Your task to perform on an android device: toggle show notifications on the lock screen Image 0: 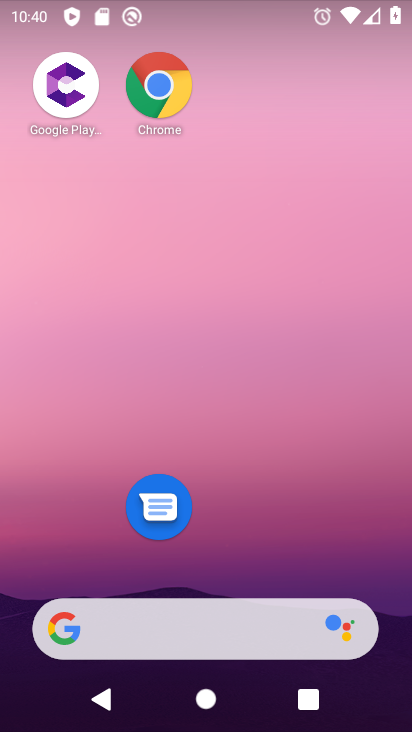
Step 0: drag from (268, 696) to (187, 110)
Your task to perform on an android device: toggle show notifications on the lock screen Image 1: 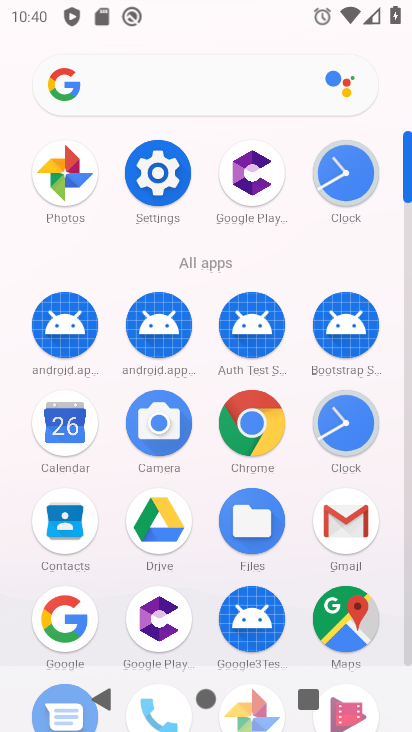
Step 1: click (159, 167)
Your task to perform on an android device: toggle show notifications on the lock screen Image 2: 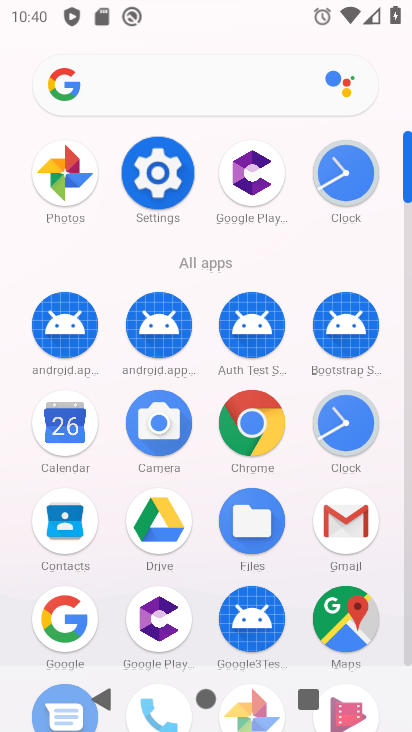
Step 2: click (157, 172)
Your task to perform on an android device: toggle show notifications on the lock screen Image 3: 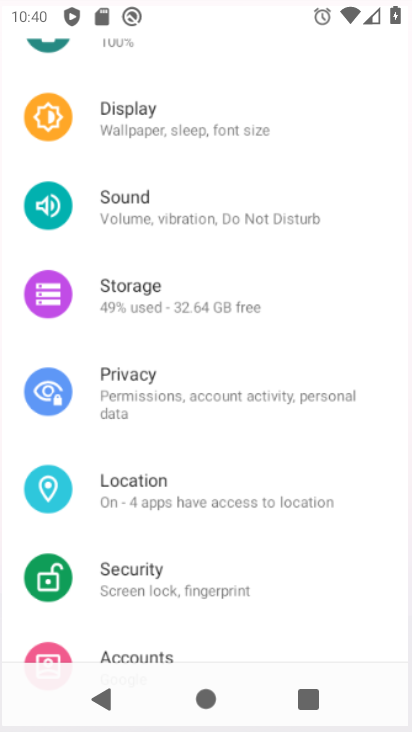
Step 3: click (151, 184)
Your task to perform on an android device: toggle show notifications on the lock screen Image 4: 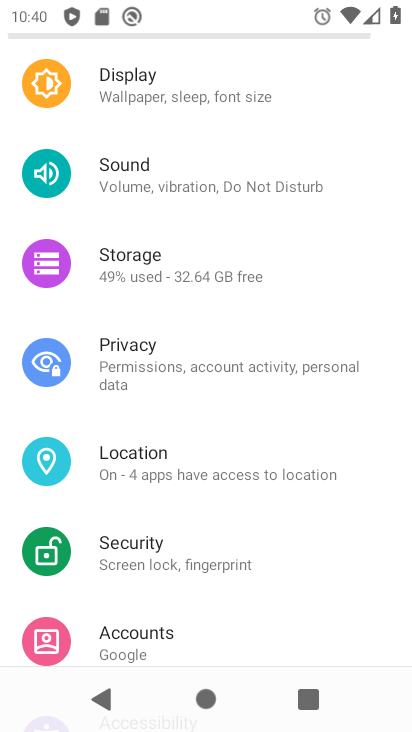
Step 4: click (152, 185)
Your task to perform on an android device: toggle show notifications on the lock screen Image 5: 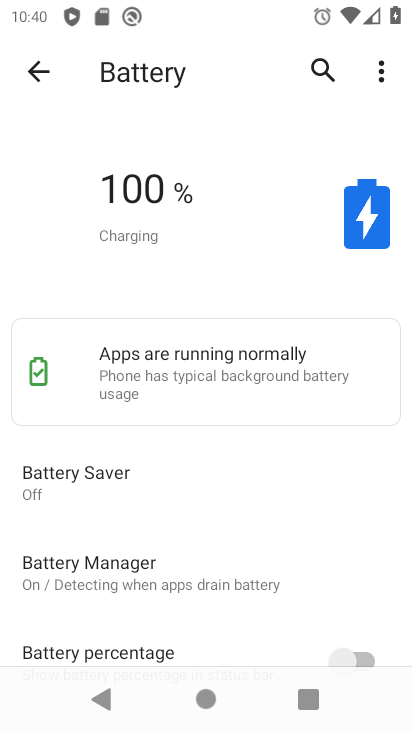
Step 5: click (30, 64)
Your task to perform on an android device: toggle show notifications on the lock screen Image 6: 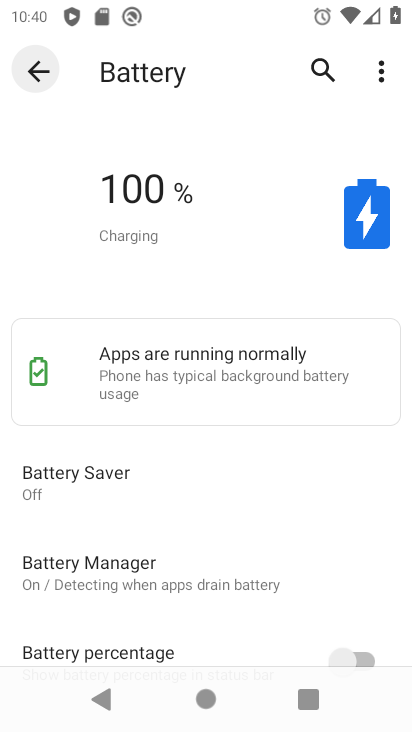
Step 6: click (30, 64)
Your task to perform on an android device: toggle show notifications on the lock screen Image 7: 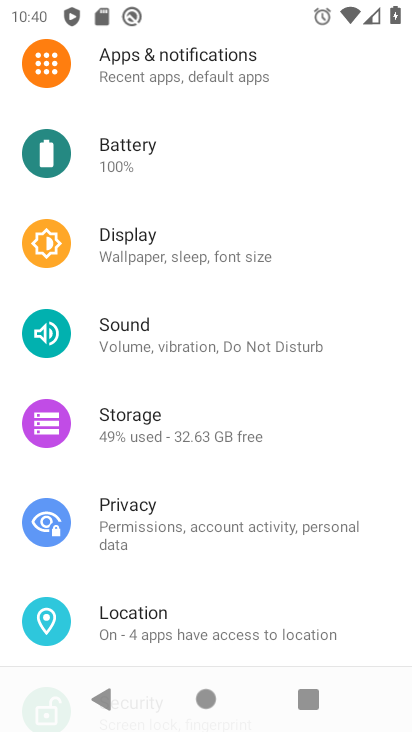
Step 7: drag from (174, 85) to (252, 526)
Your task to perform on an android device: toggle show notifications on the lock screen Image 8: 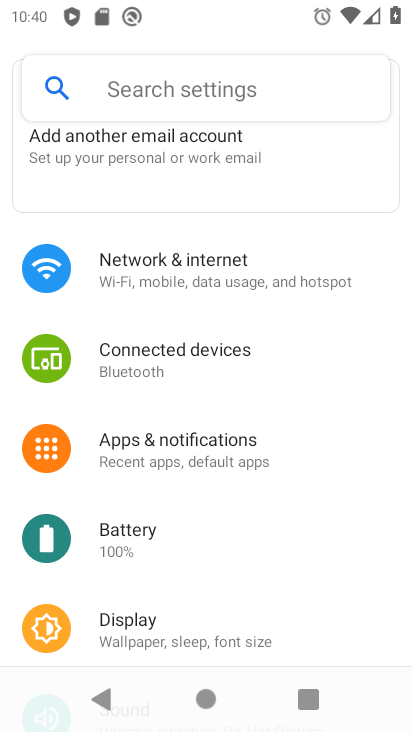
Step 8: drag from (199, 229) to (208, 582)
Your task to perform on an android device: toggle show notifications on the lock screen Image 9: 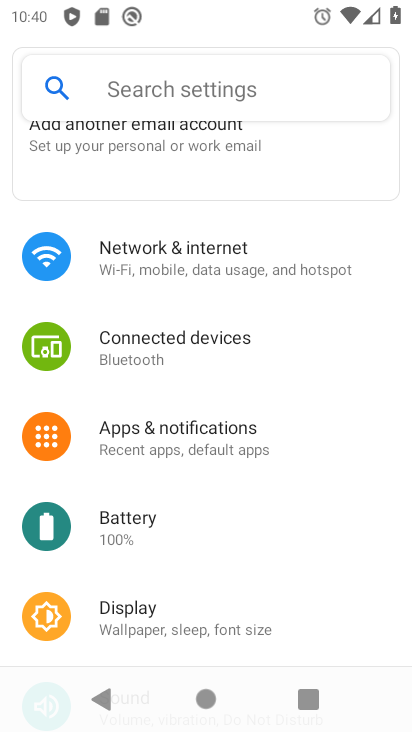
Step 9: click (186, 436)
Your task to perform on an android device: toggle show notifications on the lock screen Image 10: 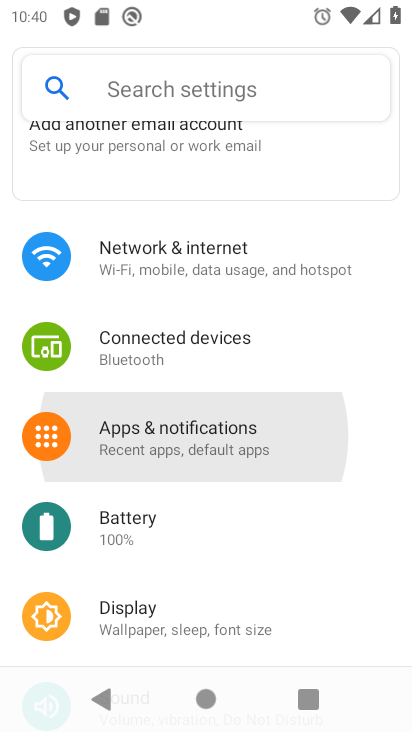
Step 10: click (186, 438)
Your task to perform on an android device: toggle show notifications on the lock screen Image 11: 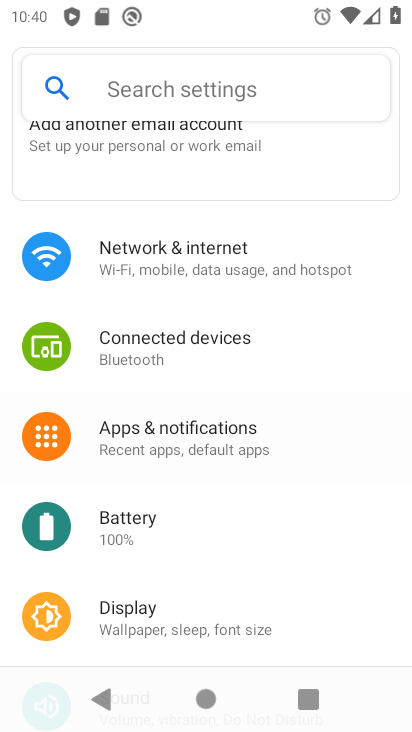
Step 11: click (195, 453)
Your task to perform on an android device: toggle show notifications on the lock screen Image 12: 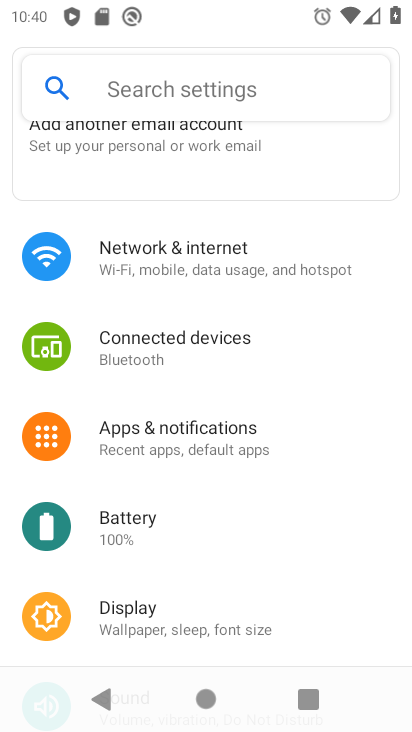
Step 12: click (189, 444)
Your task to perform on an android device: toggle show notifications on the lock screen Image 13: 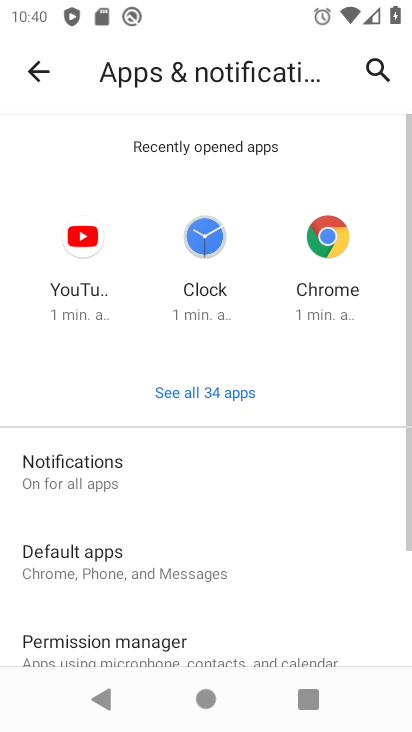
Step 13: drag from (143, 461) to (176, 92)
Your task to perform on an android device: toggle show notifications on the lock screen Image 14: 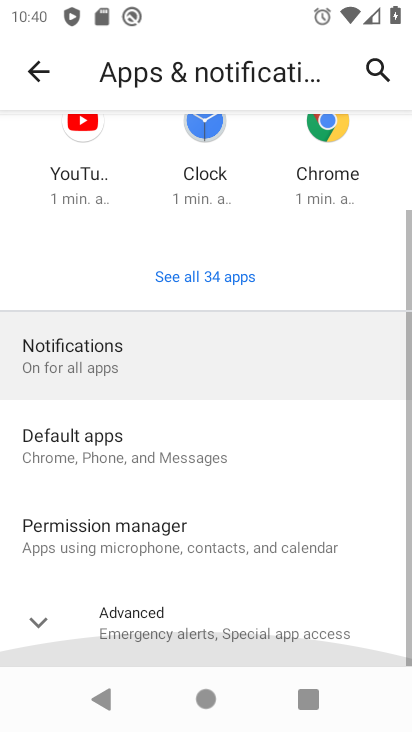
Step 14: drag from (175, 341) to (173, 165)
Your task to perform on an android device: toggle show notifications on the lock screen Image 15: 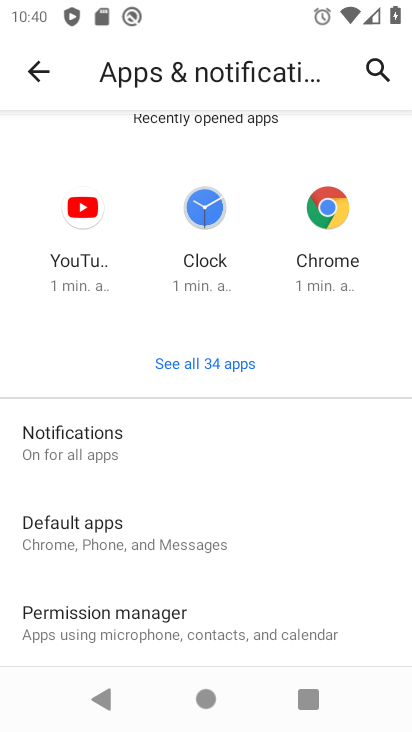
Step 15: click (51, 440)
Your task to perform on an android device: toggle show notifications on the lock screen Image 16: 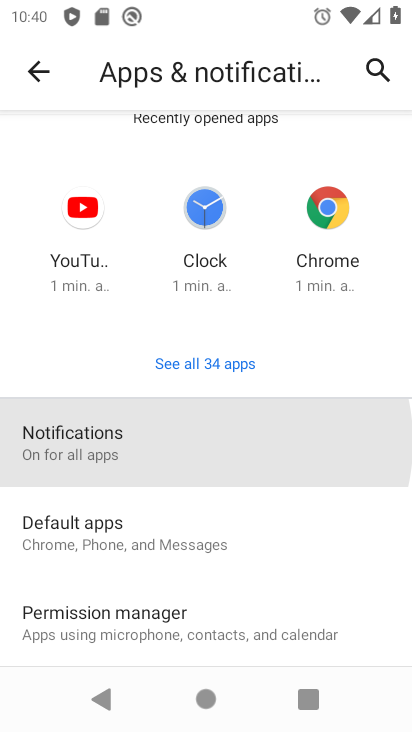
Step 16: click (54, 443)
Your task to perform on an android device: toggle show notifications on the lock screen Image 17: 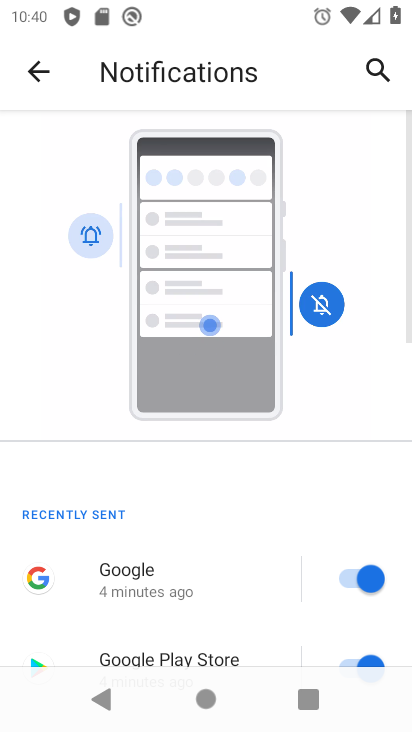
Step 17: drag from (201, 414) to (229, 223)
Your task to perform on an android device: toggle show notifications on the lock screen Image 18: 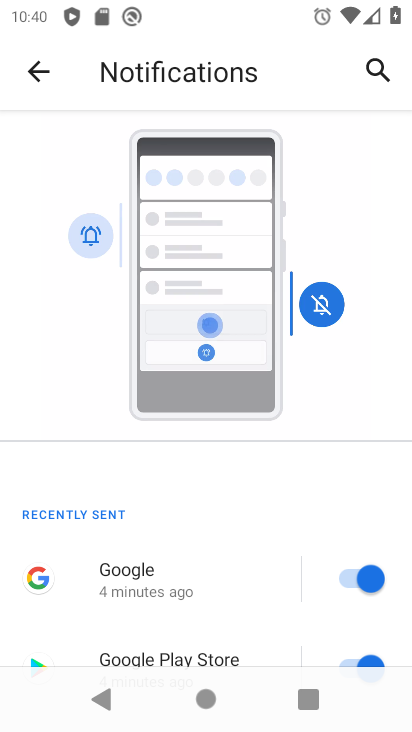
Step 18: drag from (253, 404) to (240, 41)
Your task to perform on an android device: toggle show notifications on the lock screen Image 19: 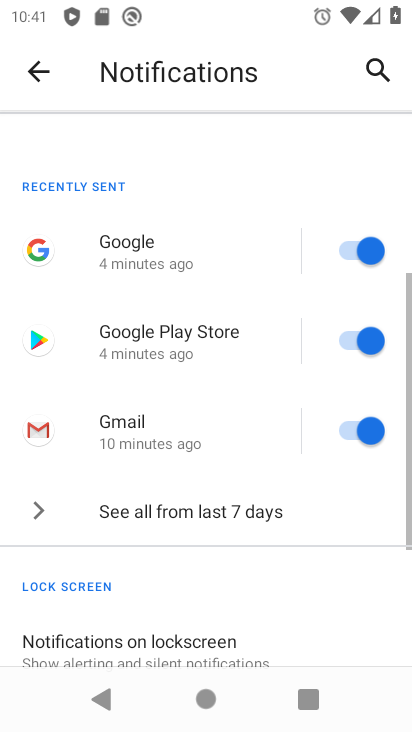
Step 19: drag from (162, 315) to (190, 81)
Your task to perform on an android device: toggle show notifications on the lock screen Image 20: 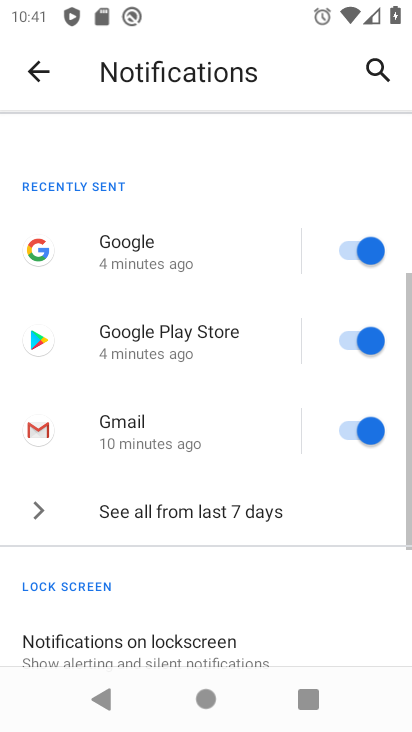
Step 20: click (117, 171)
Your task to perform on an android device: toggle show notifications on the lock screen Image 21: 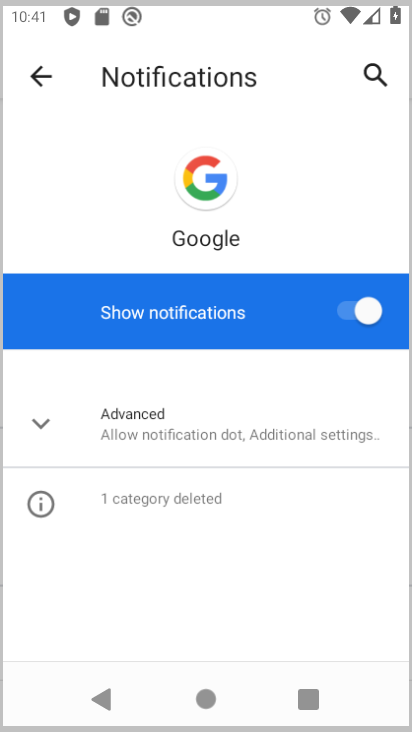
Step 21: drag from (166, 396) to (209, 106)
Your task to perform on an android device: toggle show notifications on the lock screen Image 22: 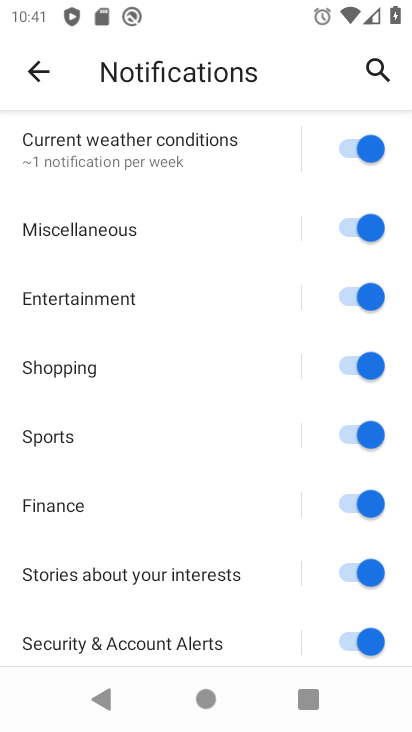
Step 22: click (36, 72)
Your task to perform on an android device: toggle show notifications on the lock screen Image 23: 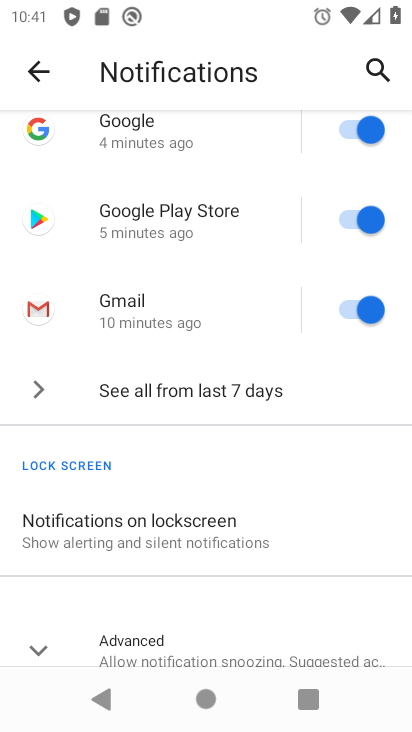
Step 23: click (129, 512)
Your task to perform on an android device: toggle show notifications on the lock screen Image 24: 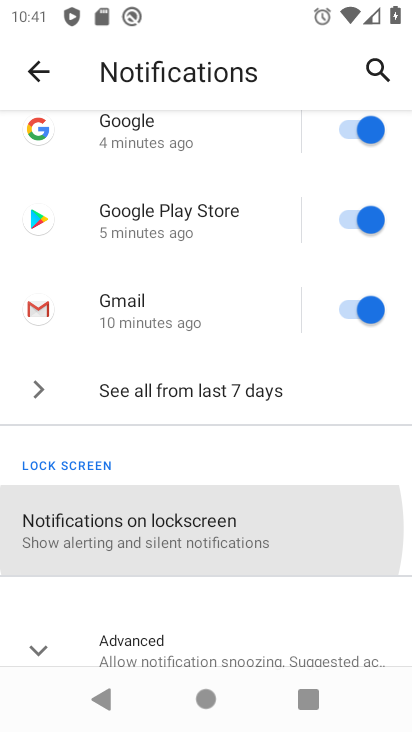
Step 24: click (123, 540)
Your task to perform on an android device: toggle show notifications on the lock screen Image 25: 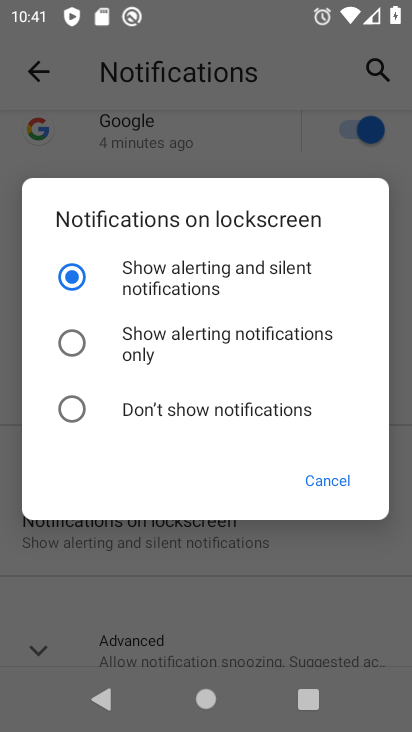
Step 25: click (67, 334)
Your task to perform on an android device: toggle show notifications on the lock screen Image 26: 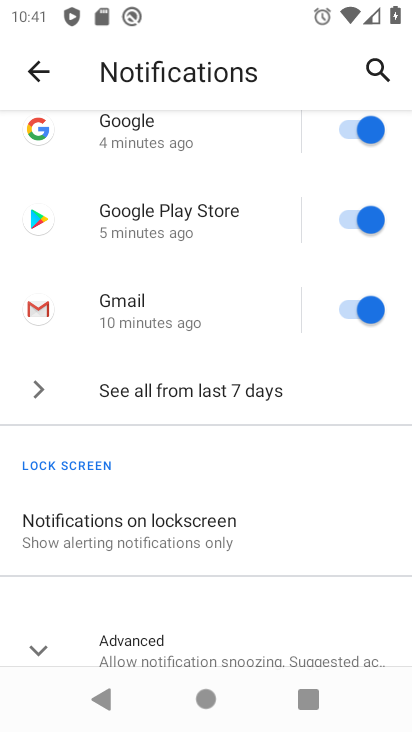
Step 26: click (117, 524)
Your task to perform on an android device: toggle show notifications on the lock screen Image 27: 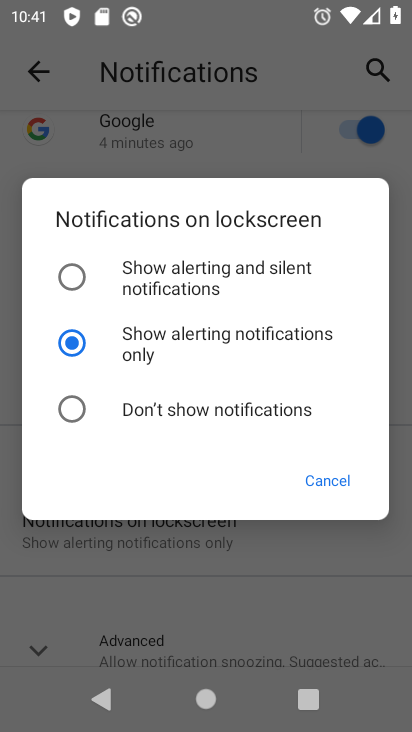
Step 27: click (66, 278)
Your task to perform on an android device: toggle show notifications on the lock screen Image 28: 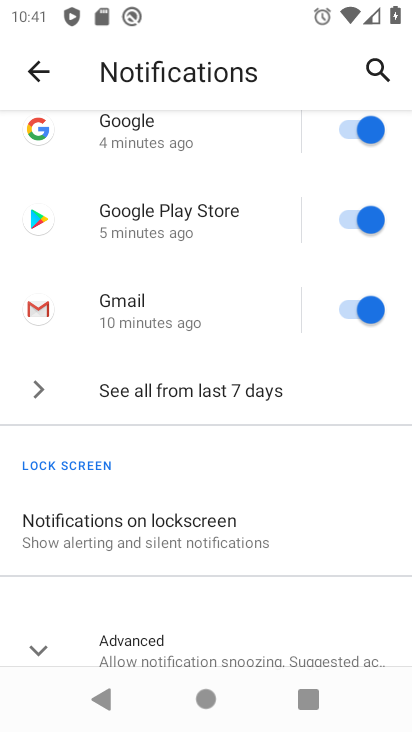
Step 28: task complete